Your task to perform on an android device: turn off javascript in the chrome app Image 0: 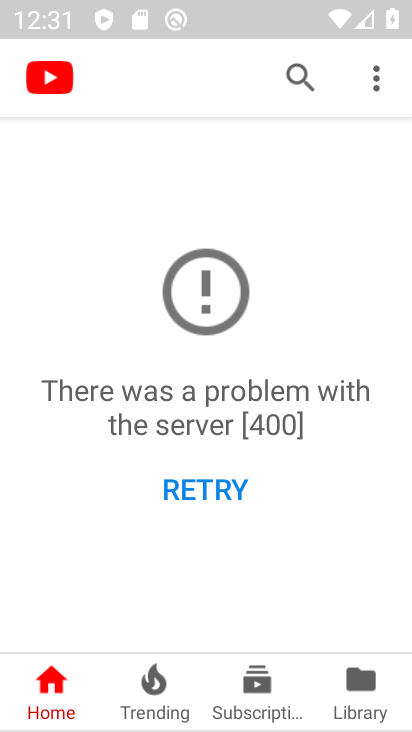
Step 0: press home button
Your task to perform on an android device: turn off javascript in the chrome app Image 1: 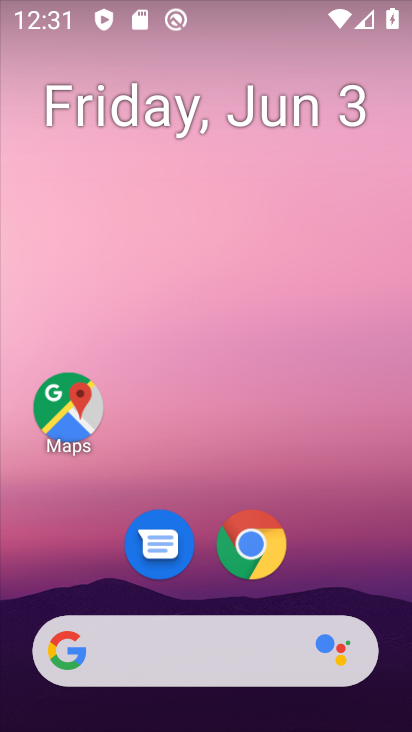
Step 1: click (242, 537)
Your task to perform on an android device: turn off javascript in the chrome app Image 2: 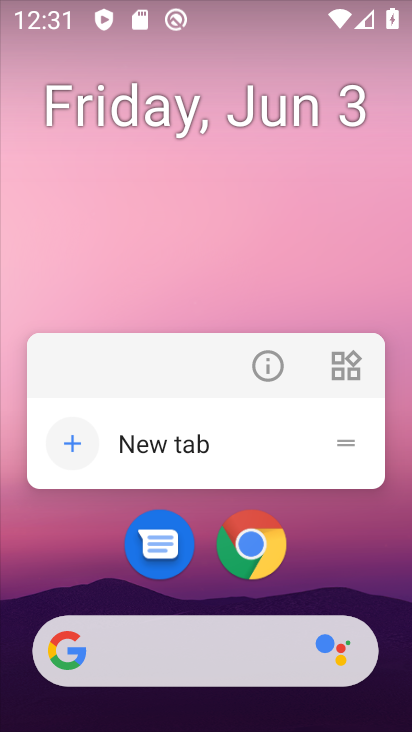
Step 2: click (248, 549)
Your task to perform on an android device: turn off javascript in the chrome app Image 3: 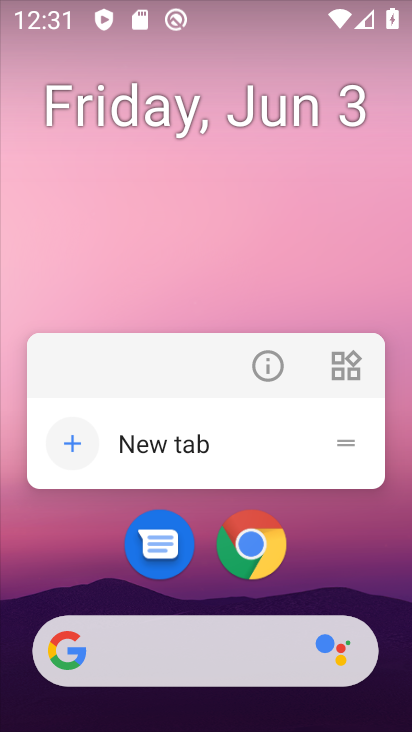
Step 3: click (261, 550)
Your task to perform on an android device: turn off javascript in the chrome app Image 4: 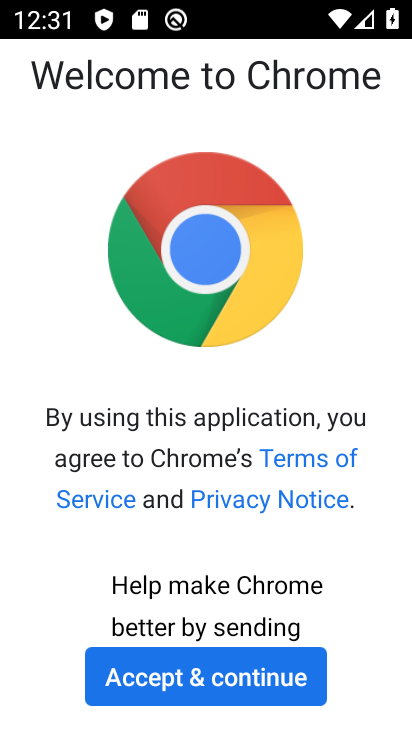
Step 4: click (140, 687)
Your task to perform on an android device: turn off javascript in the chrome app Image 5: 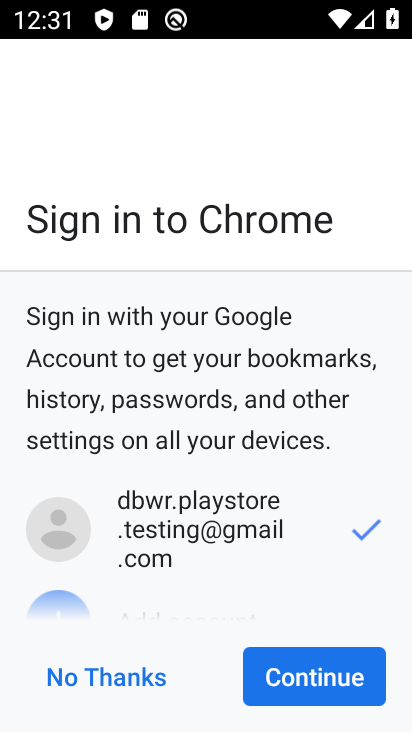
Step 5: click (264, 669)
Your task to perform on an android device: turn off javascript in the chrome app Image 6: 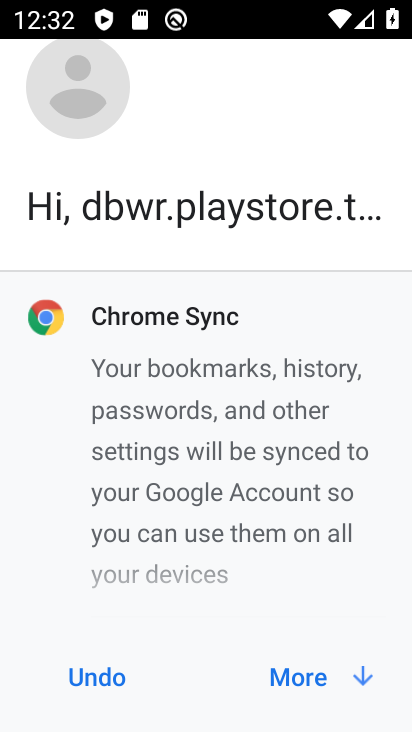
Step 6: click (273, 677)
Your task to perform on an android device: turn off javascript in the chrome app Image 7: 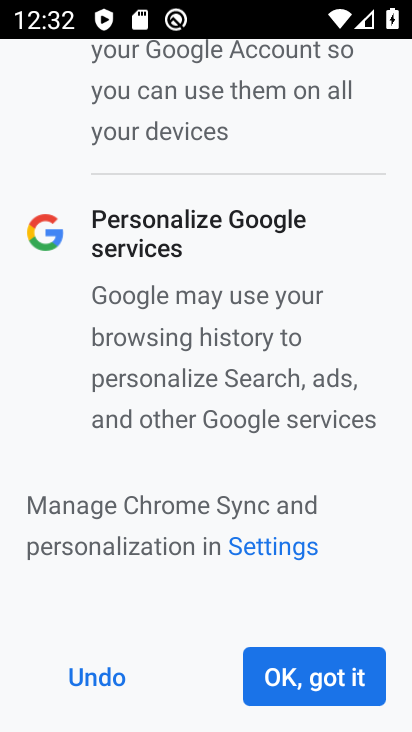
Step 7: click (299, 687)
Your task to perform on an android device: turn off javascript in the chrome app Image 8: 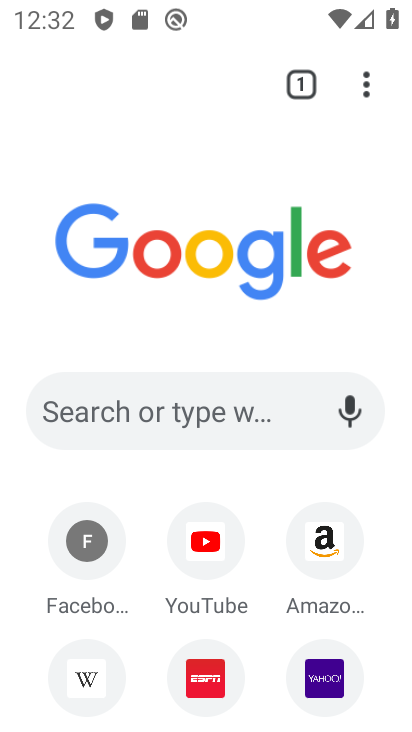
Step 8: click (370, 72)
Your task to perform on an android device: turn off javascript in the chrome app Image 9: 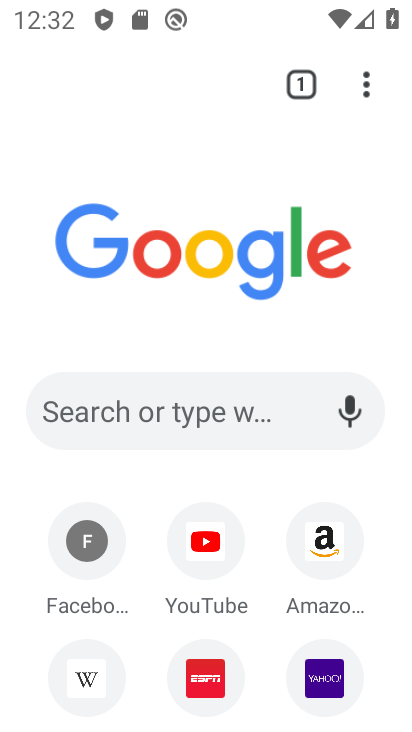
Step 9: click (371, 88)
Your task to perform on an android device: turn off javascript in the chrome app Image 10: 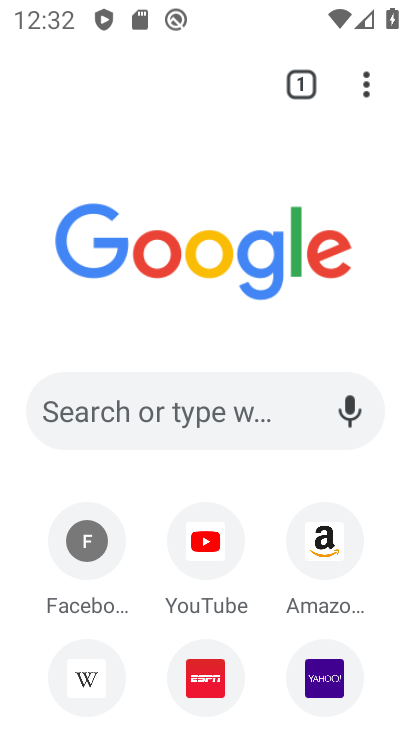
Step 10: click (370, 91)
Your task to perform on an android device: turn off javascript in the chrome app Image 11: 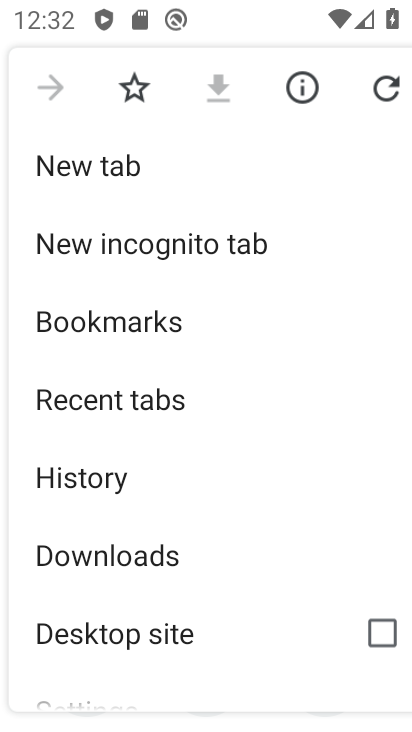
Step 11: drag from (145, 625) to (202, 27)
Your task to perform on an android device: turn off javascript in the chrome app Image 12: 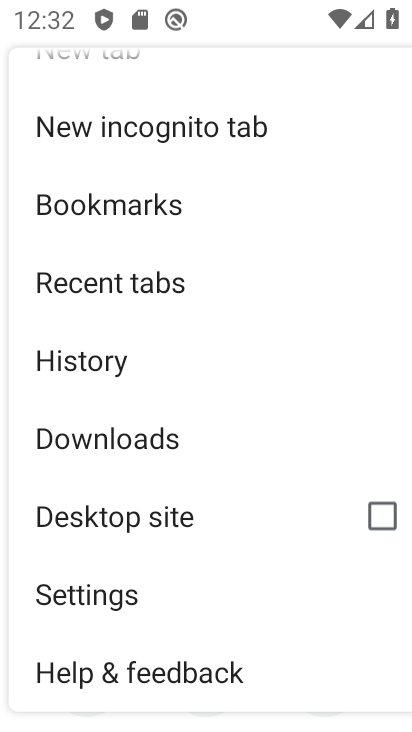
Step 12: click (119, 599)
Your task to perform on an android device: turn off javascript in the chrome app Image 13: 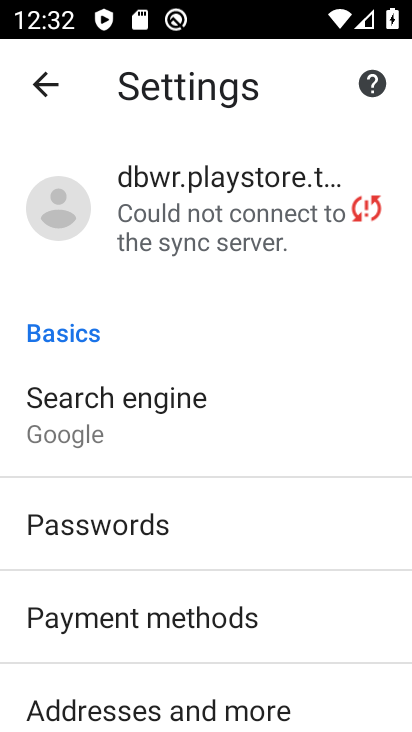
Step 13: drag from (148, 659) to (176, 162)
Your task to perform on an android device: turn off javascript in the chrome app Image 14: 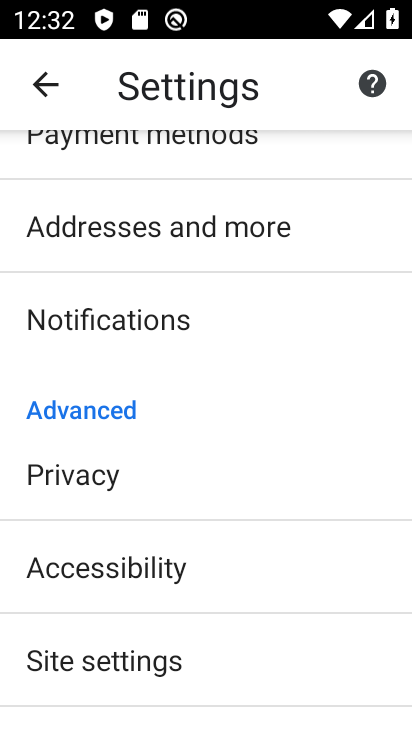
Step 14: click (147, 647)
Your task to perform on an android device: turn off javascript in the chrome app Image 15: 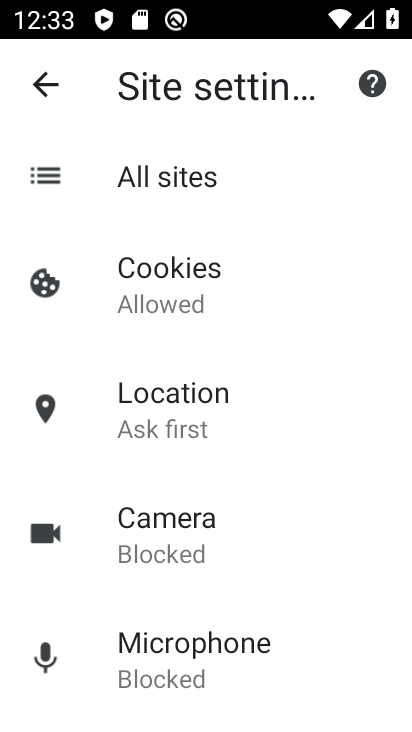
Step 15: drag from (180, 655) to (185, 79)
Your task to perform on an android device: turn off javascript in the chrome app Image 16: 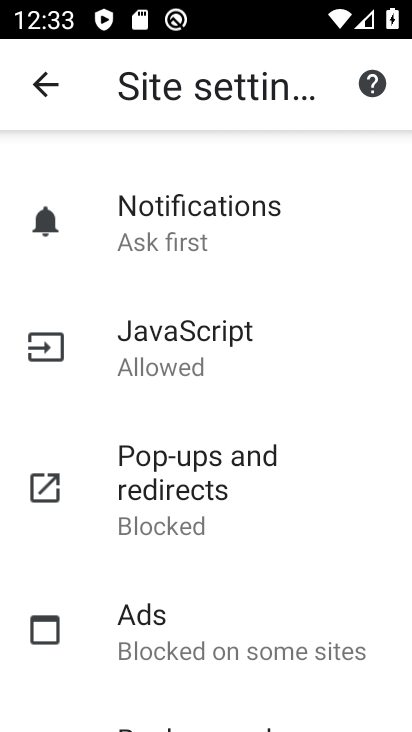
Step 16: click (184, 367)
Your task to perform on an android device: turn off javascript in the chrome app Image 17: 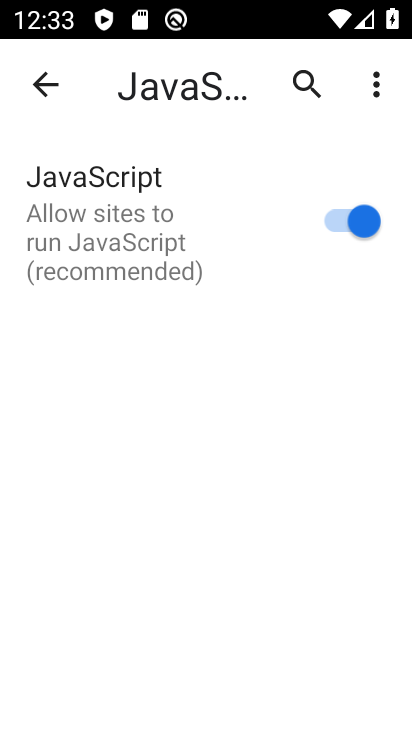
Step 17: click (321, 209)
Your task to perform on an android device: turn off javascript in the chrome app Image 18: 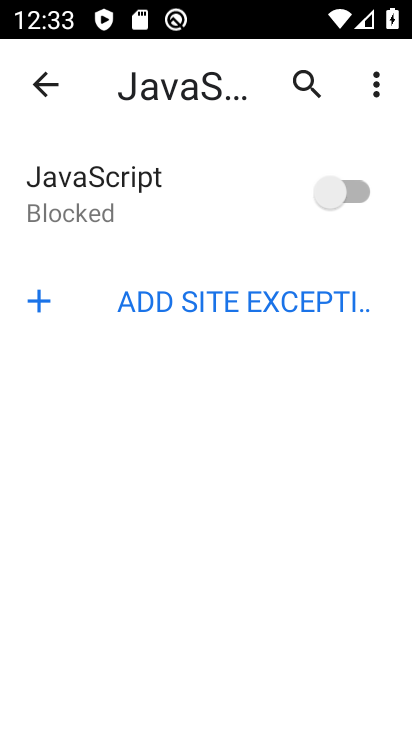
Step 18: task complete